Your task to perform on an android device: Is it going to rain this weekend? Image 0: 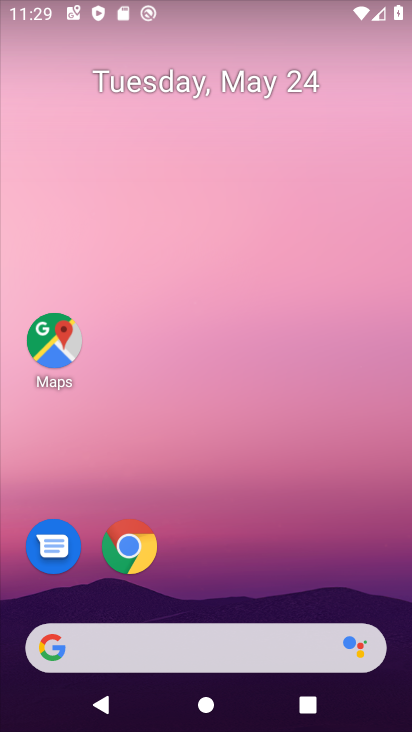
Step 0: drag from (229, 581) to (248, 143)
Your task to perform on an android device: Is it going to rain this weekend? Image 1: 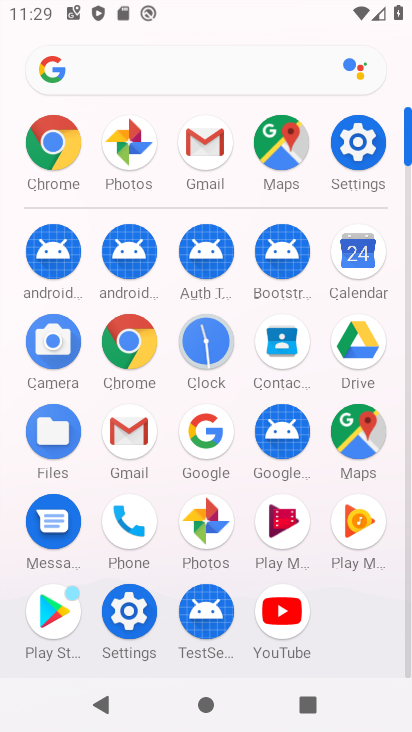
Step 1: click (64, 149)
Your task to perform on an android device: Is it going to rain this weekend? Image 2: 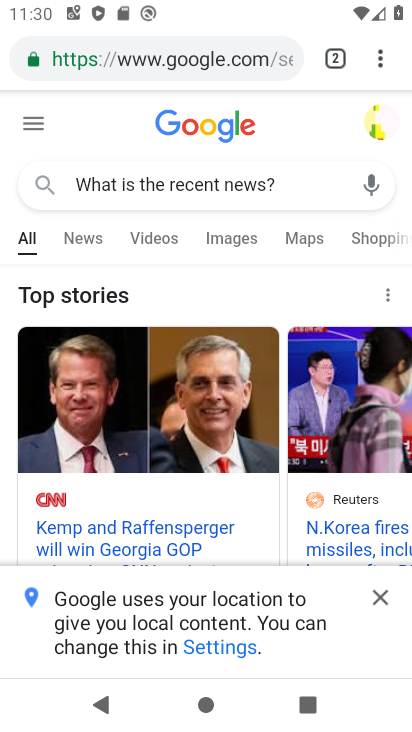
Step 2: click (278, 201)
Your task to perform on an android device: Is it going to rain this weekend? Image 3: 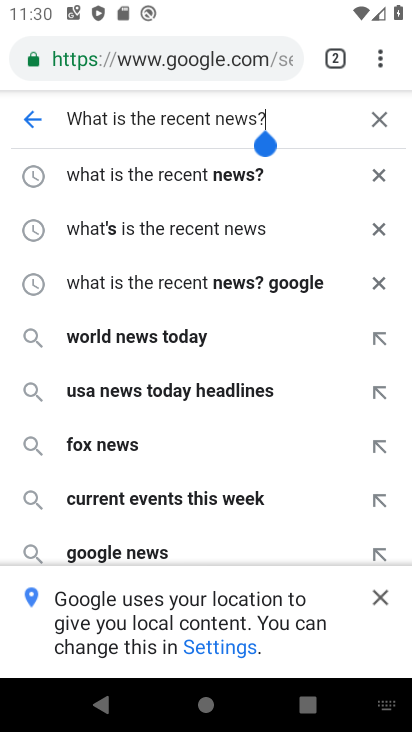
Step 3: click (379, 124)
Your task to perform on an android device: Is it going to rain this weekend? Image 4: 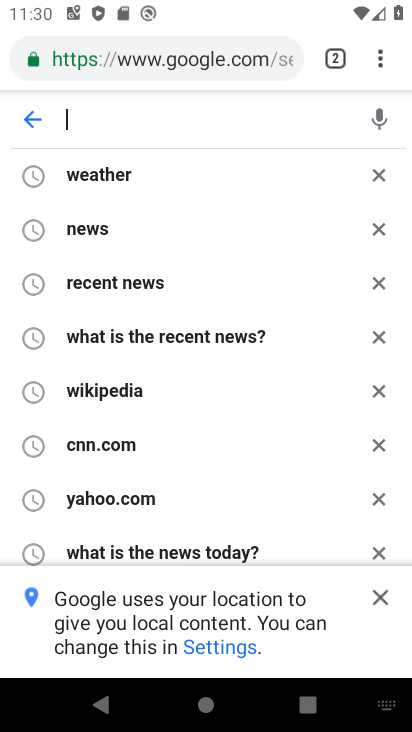
Step 4: type "Is it going to rain this weekend?"
Your task to perform on an android device: Is it going to rain this weekend? Image 5: 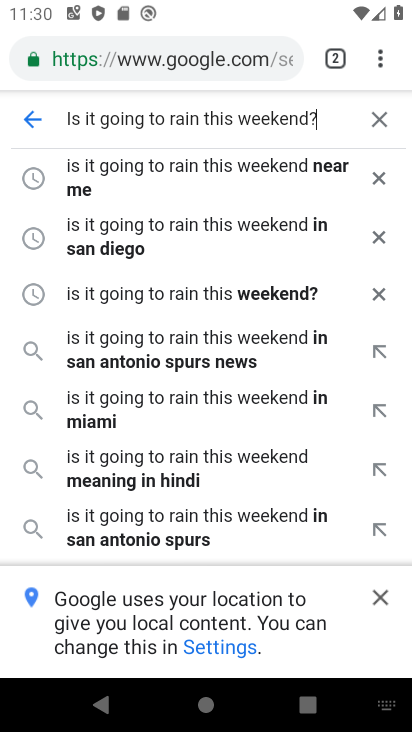
Step 5: click (284, 291)
Your task to perform on an android device: Is it going to rain this weekend? Image 6: 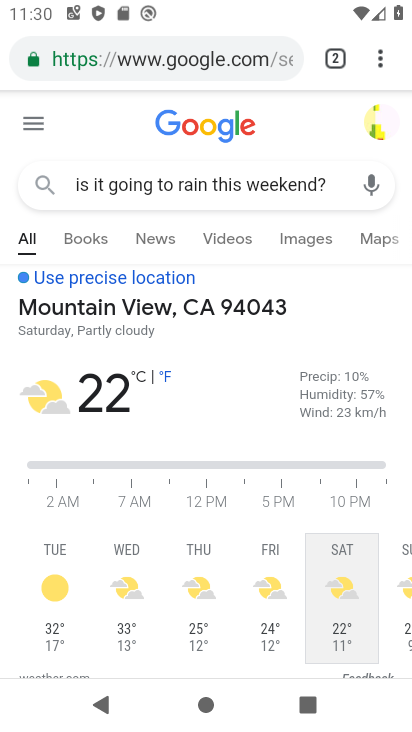
Step 6: task complete